Your task to perform on an android device: change alarm snooze length Image 0: 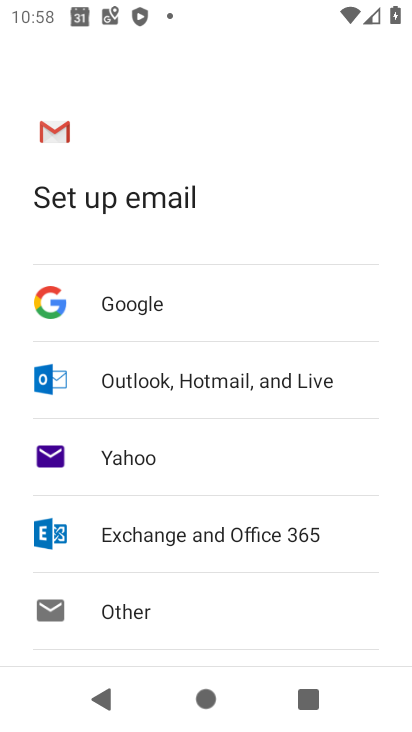
Step 0: press back button
Your task to perform on an android device: change alarm snooze length Image 1: 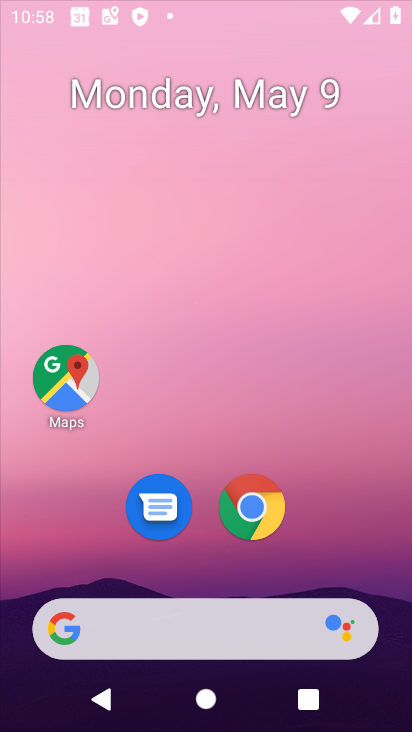
Step 1: press back button
Your task to perform on an android device: change alarm snooze length Image 2: 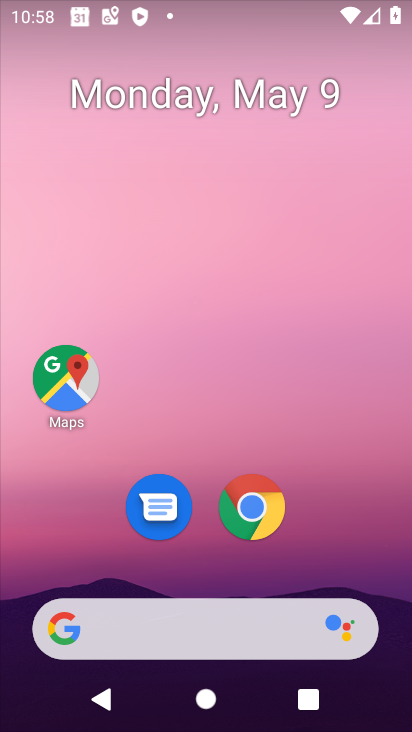
Step 2: drag from (218, 576) to (269, 18)
Your task to perform on an android device: change alarm snooze length Image 3: 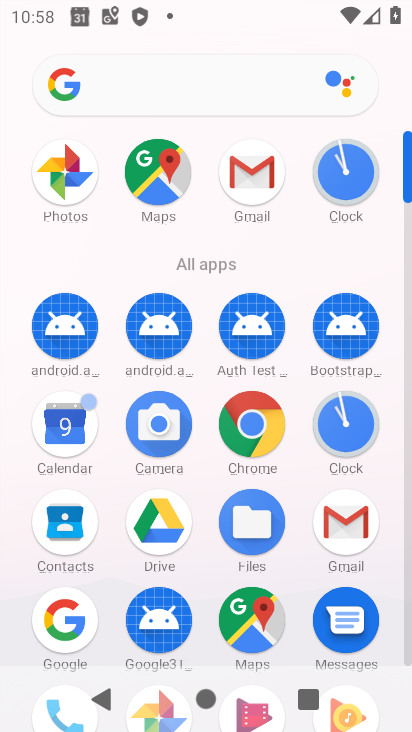
Step 3: click (344, 193)
Your task to perform on an android device: change alarm snooze length Image 4: 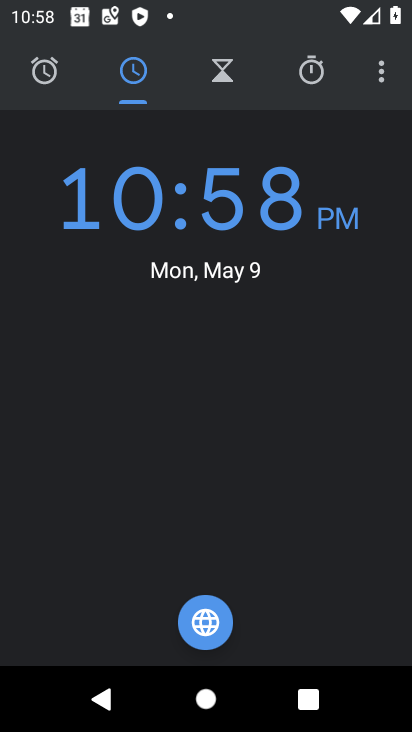
Step 4: click (381, 68)
Your task to perform on an android device: change alarm snooze length Image 5: 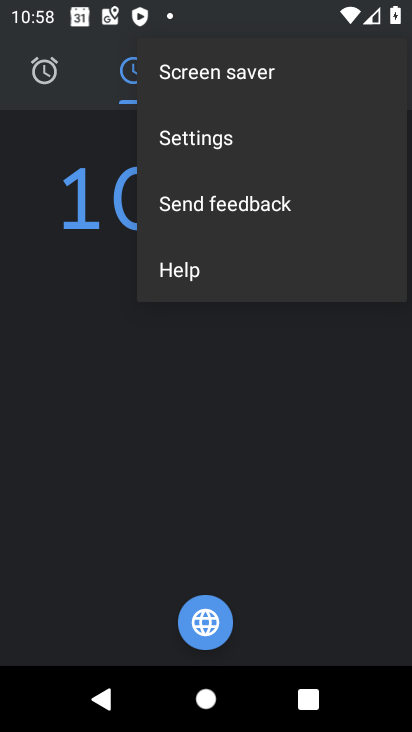
Step 5: click (225, 132)
Your task to perform on an android device: change alarm snooze length Image 6: 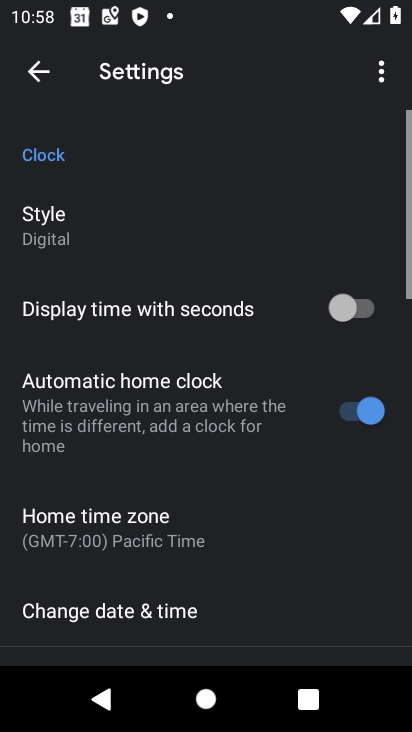
Step 6: drag from (162, 580) to (271, 82)
Your task to perform on an android device: change alarm snooze length Image 7: 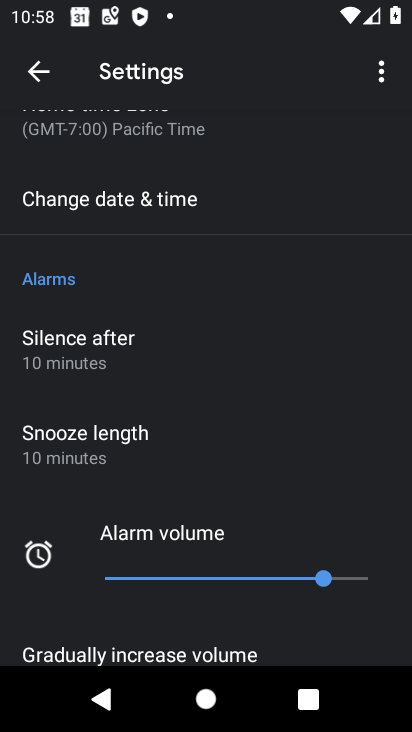
Step 7: click (74, 433)
Your task to perform on an android device: change alarm snooze length Image 8: 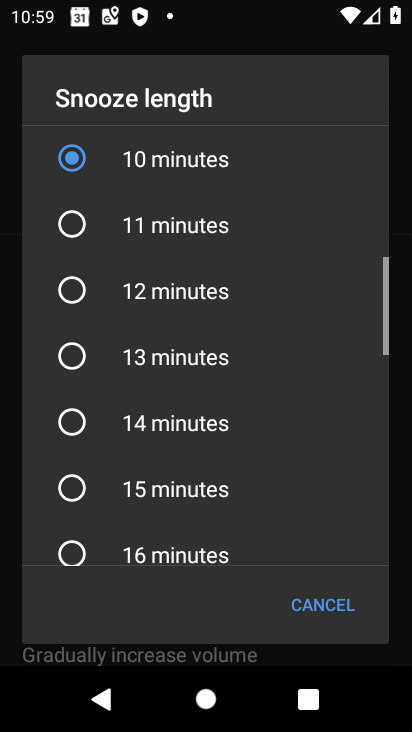
Step 8: click (151, 213)
Your task to perform on an android device: change alarm snooze length Image 9: 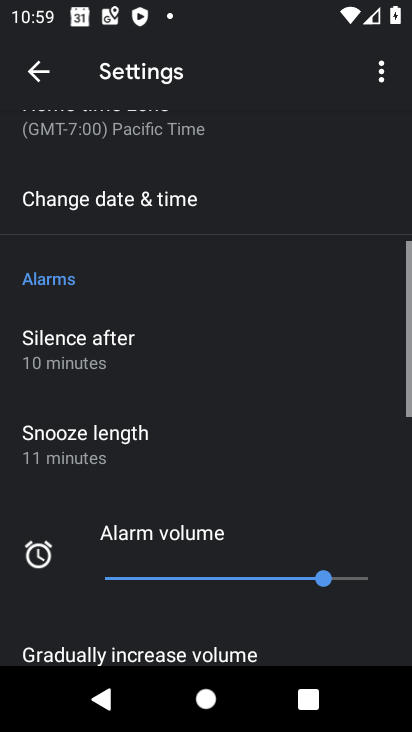
Step 9: task complete